Your task to perform on an android device: Go to display settings Image 0: 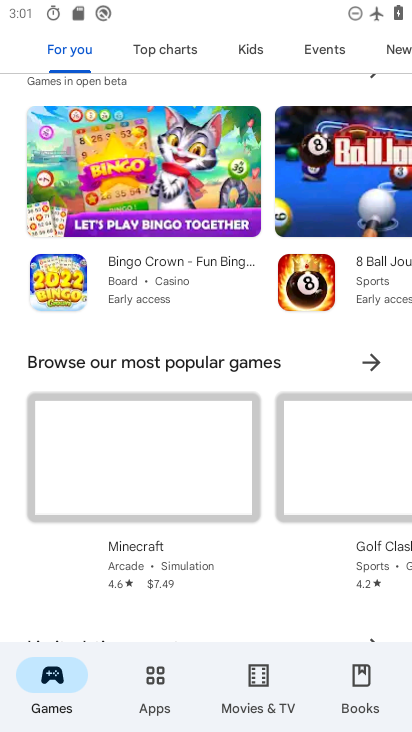
Step 0: drag from (193, 631) to (232, 205)
Your task to perform on an android device: Go to display settings Image 1: 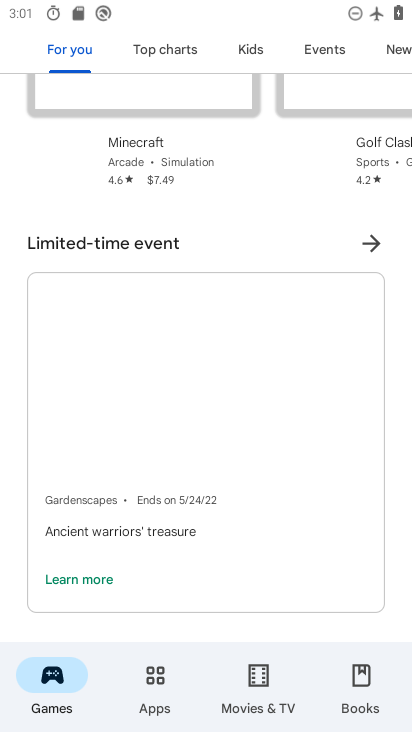
Step 1: press home button
Your task to perform on an android device: Go to display settings Image 2: 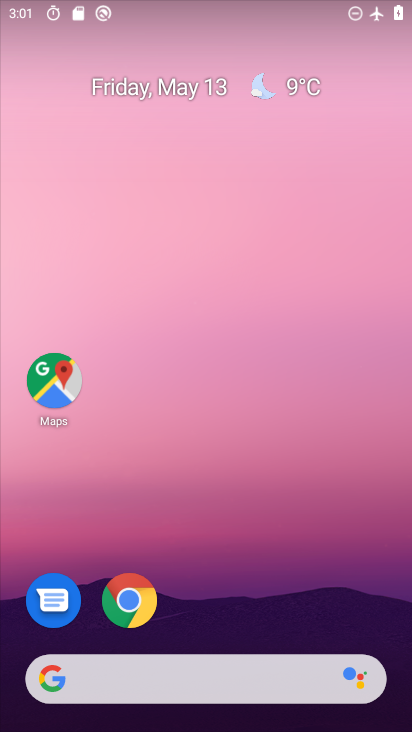
Step 2: drag from (183, 637) to (181, 140)
Your task to perform on an android device: Go to display settings Image 3: 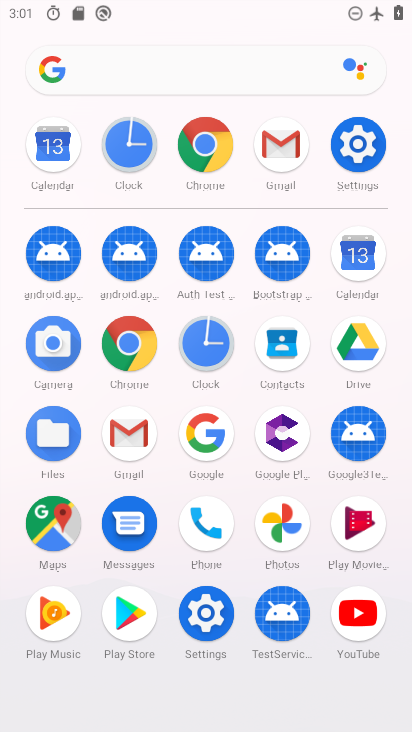
Step 3: click (218, 616)
Your task to perform on an android device: Go to display settings Image 4: 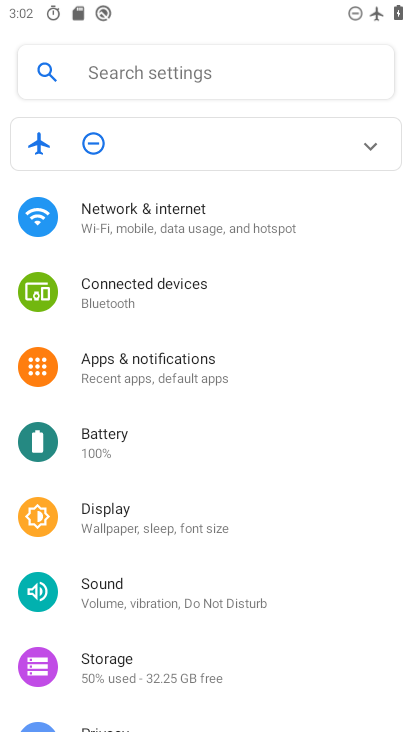
Step 4: drag from (144, 652) to (174, 276)
Your task to perform on an android device: Go to display settings Image 5: 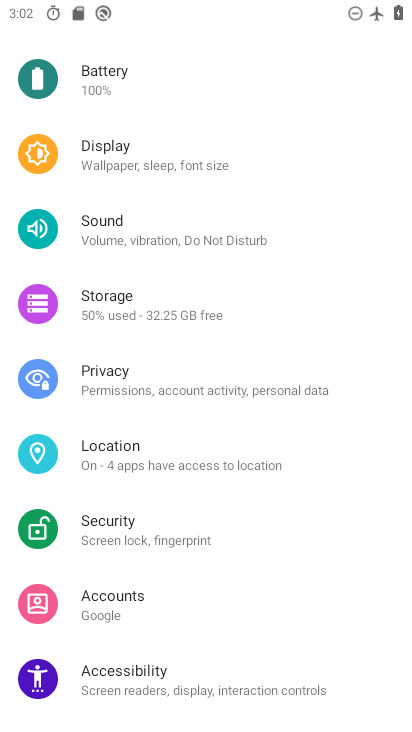
Step 5: click (157, 151)
Your task to perform on an android device: Go to display settings Image 6: 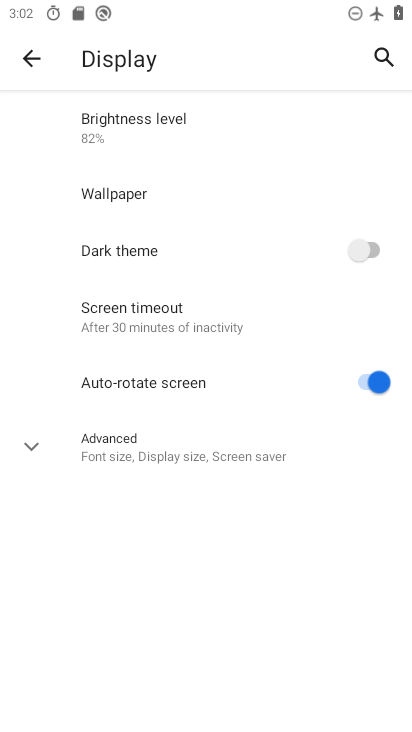
Step 6: task complete